Your task to perform on an android device: open a new tab in the chrome app Image 0: 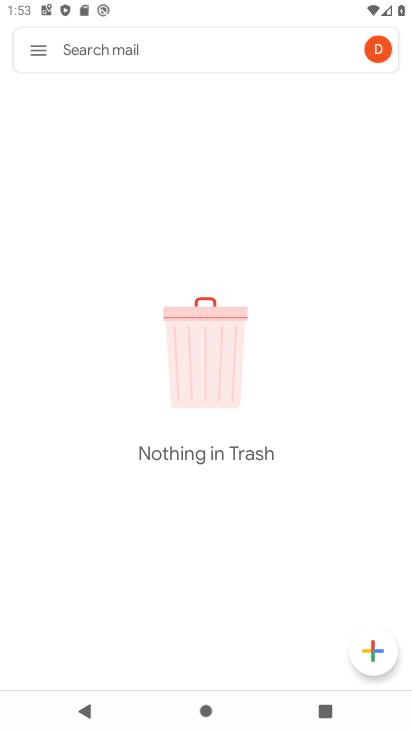
Step 0: press home button
Your task to perform on an android device: open a new tab in the chrome app Image 1: 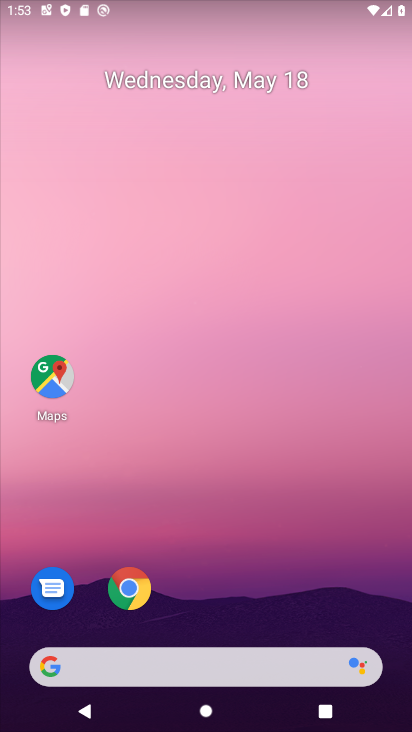
Step 1: drag from (337, 614) to (323, 182)
Your task to perform on an android device: open a new tab in the chrome app Image 2: 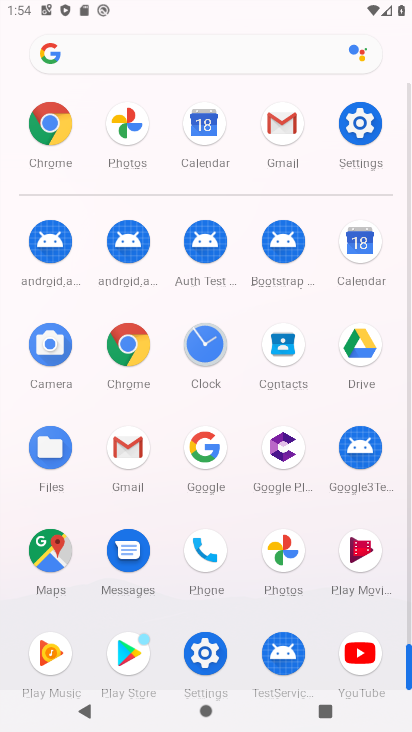
Step 2: click (146, 338)
Your task to perform on an android device: open a new tab in the chrome app Image 3: 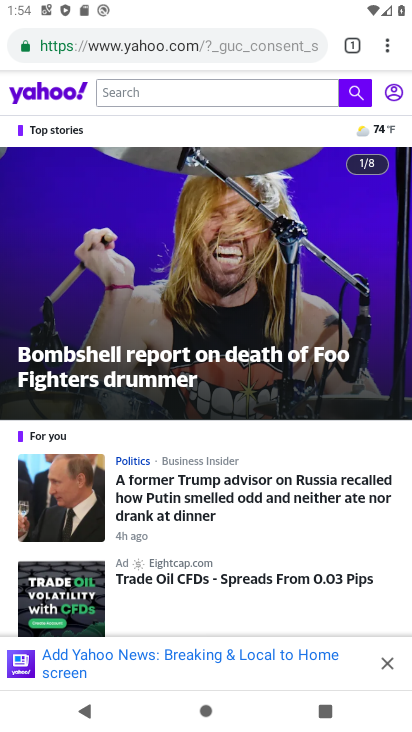
Step 3: click (383, 44)
Your task to perform on an android device: open a new tab in the chrome app Image 4: 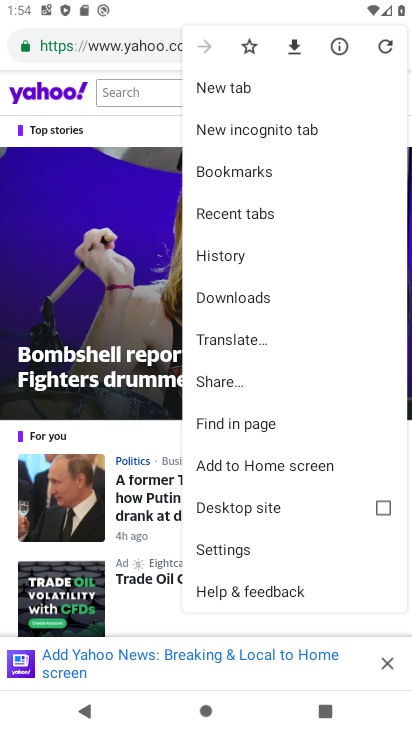
Step 4: click (264, 95)
Your task to perform on an android device: open a new tab in the chrome app Image 5: 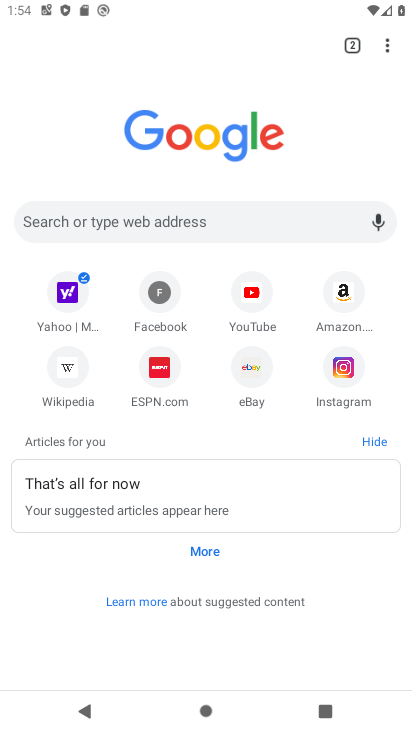
Step 5: task complete